Your task to perform on an android device: toggle wifi Image 0: 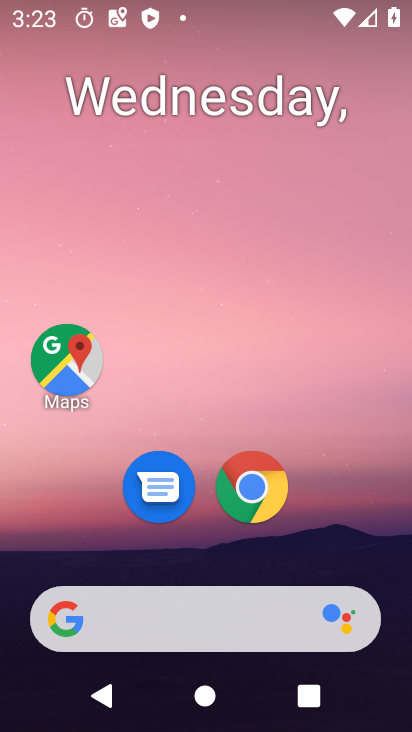
Step 0: drag from (279, 588) to (323, 201)
Your task to perform on an android device: toggle wifi Image 1: 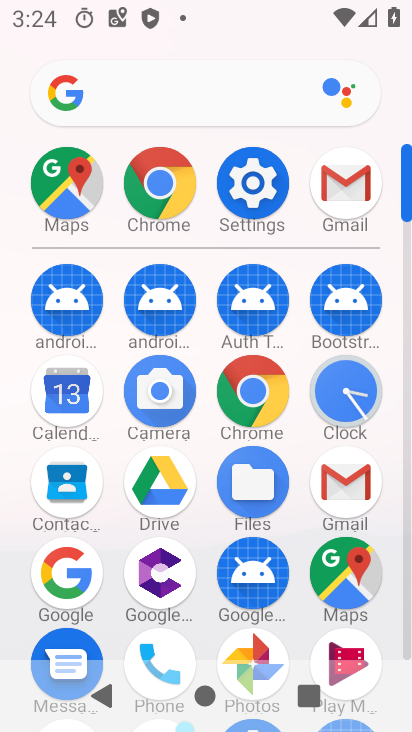
Step 1: click (242, 205)
Your task to perform on an android device: toggle wifi Image 2: 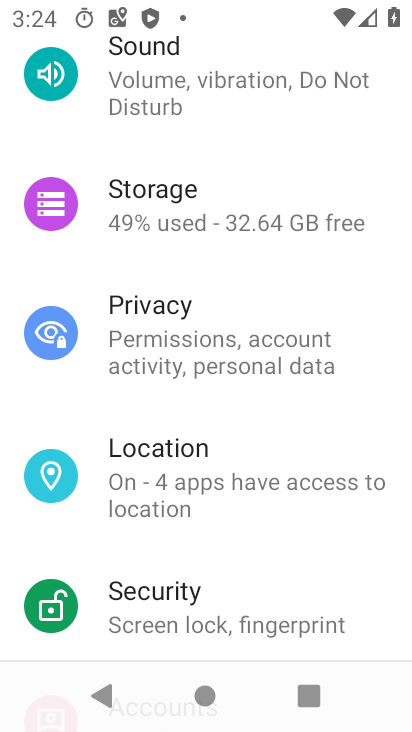
Step 2: drag from (223, 321) to (249, 669)
Your task to perform on an android device: toggle wifi Image 3: 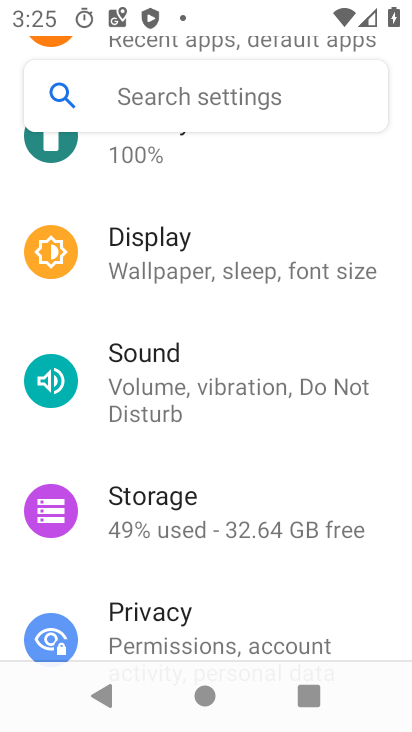
Step 3: drag from (228, 311) to (238, 695)
Your task to perform on an android device: toggle wifi Image 4: 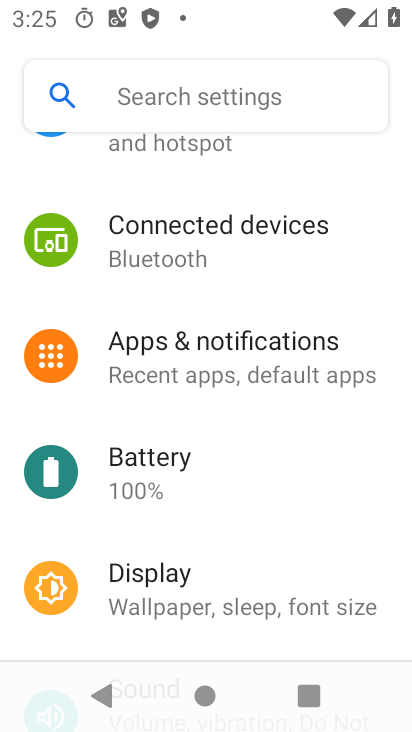
Step 4: drag from (240, 454) to (232, 600)
Your task to perform on an android device: toggle wifi Image 5: 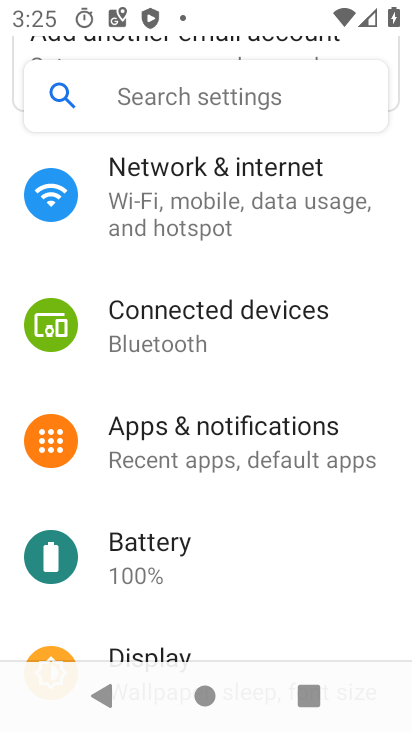
Step 5: drag from (273, 293) to (211, 612)
Your task to perform on an android device: toggle wifi Image 6: 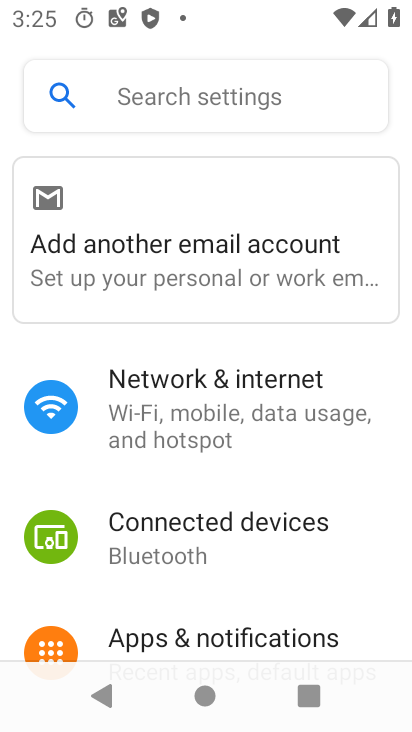
Step 6: click (235, 395)
Your task to perform on an android device: toggle wifi Image 7: 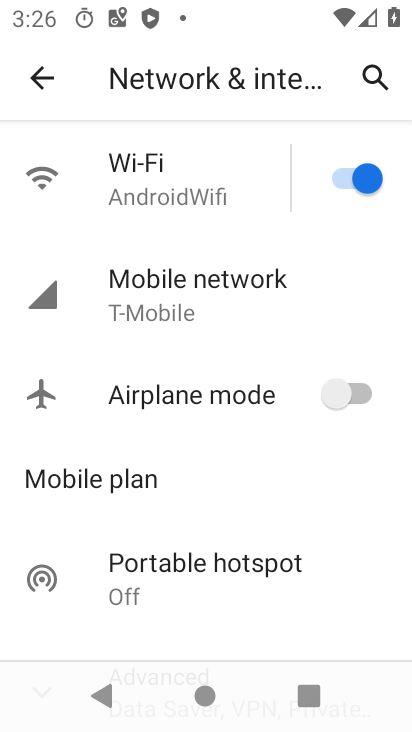
Step 7: click (352, 194)
Your task to perform on an android device: toggle wifi Image 8: 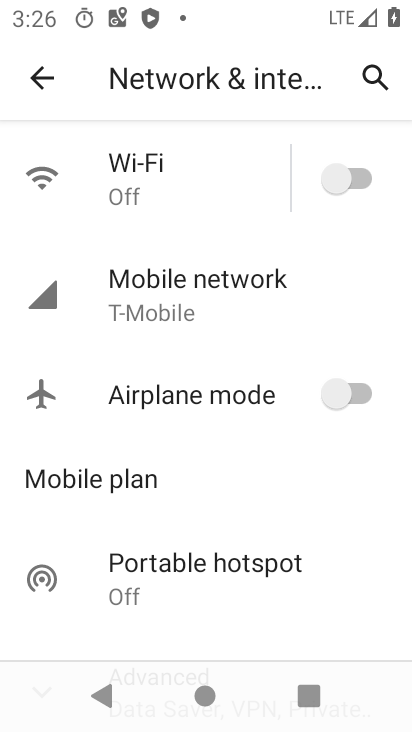
Step 8: task complete